Your task to perform on an android device: turn on the 12-hour format for clock Image 0: 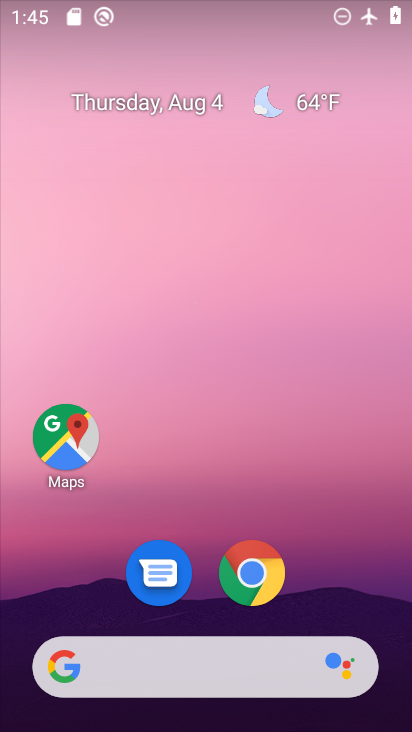
Step 0: drag from (342, 528) to (302, 99)
Your task to perform on an android device: turn on the 12-hour format for clock Image 1: 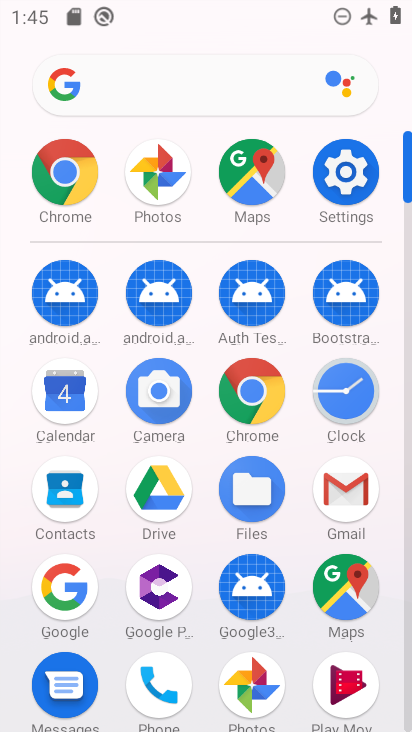
Step 1: click (366, 396)
Your task to perform on an android device: turn on the 12-hour format for clock Image 2: 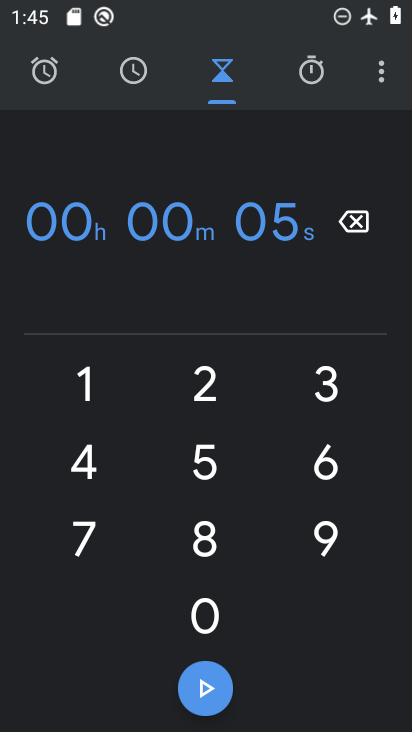
Step 2: click (376, 70)
Your task to perform on an android device: turn on the 12-hour format for clock Image 3: 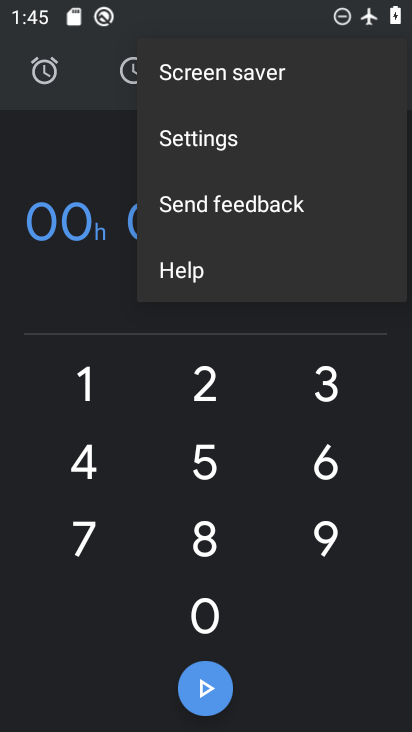
Step 3: click (230, 158)
Your task to perform on an android device: turn on the 12-hour format for clock Image 4: 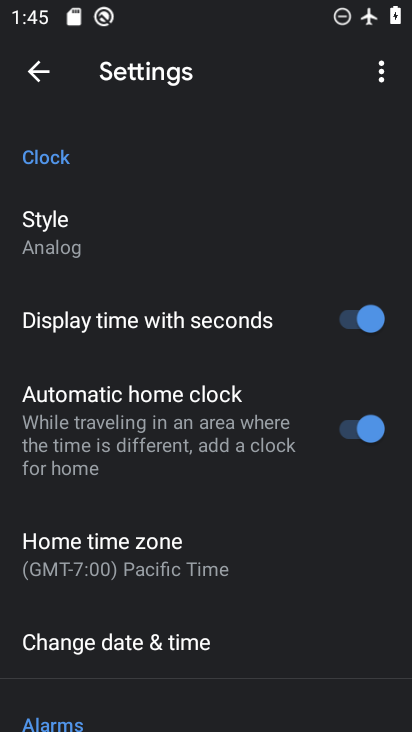
Step 4: drag from (206, 613) to (223, 434)
Your task to perform on an android device: turn on the 12-hour format for clock Image 5: 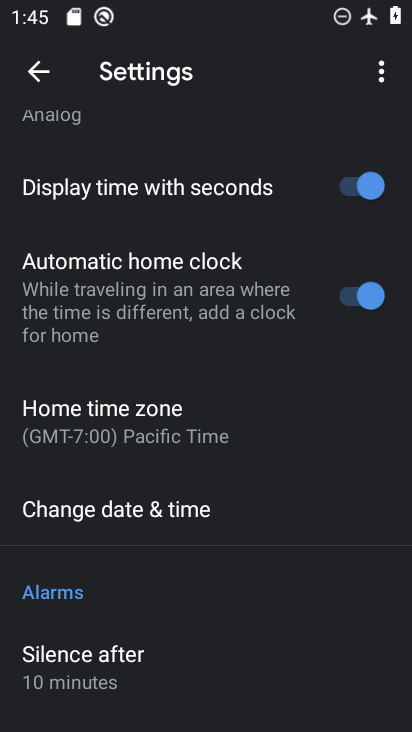
Step 5: click (161, 506)
Your task to perform on an android device: turn on the 12-hour format for clock Image 6: 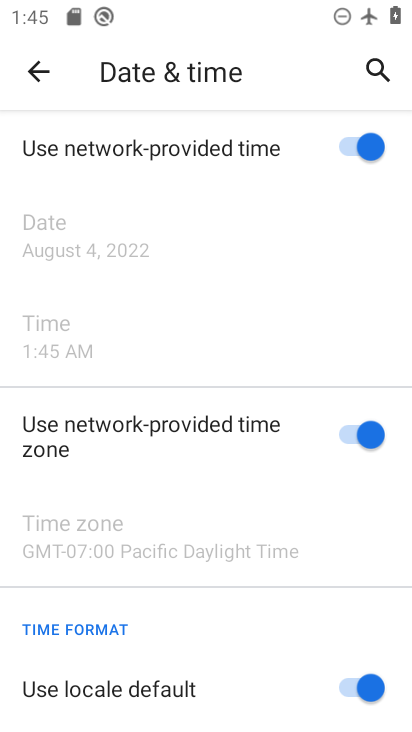
Step 6: task complete